Your task to perform on an android device: all mails in gmail Image 0: 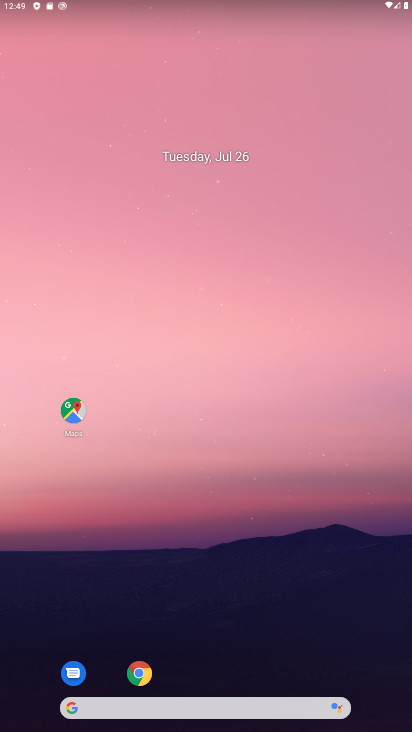
Step 0: drag from (231, 656) to (231, 152)
Your task to perform on an android device: all mails in gmail Image 1: 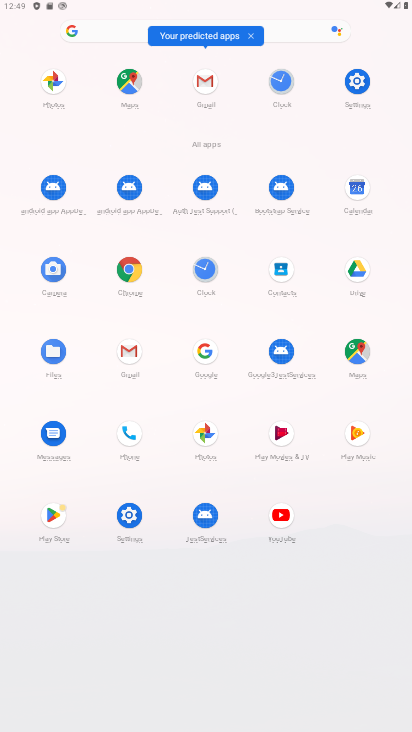
Step 1: click (200, 84)
Your task to perform on an android device: all mails in gmail Image 2: 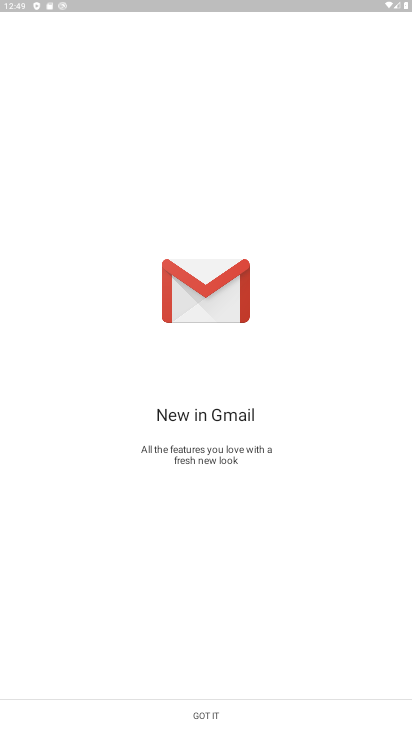
Step 2: click (235, 722)
Your task to perform on an android device: all mails in gmail Image 3: 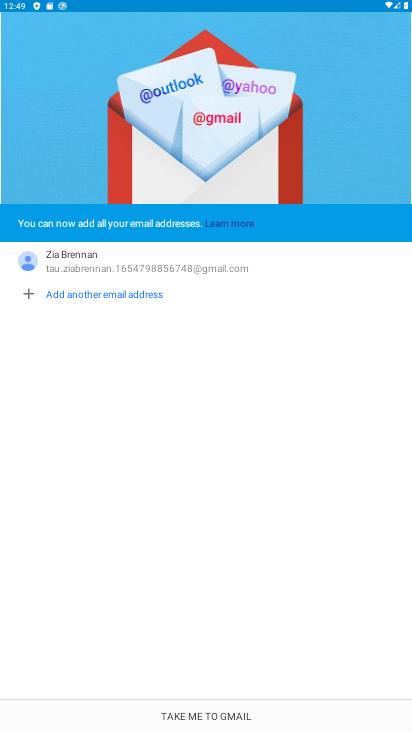
Step 3: click (231, 726)
Your task to perform on an android device: all mails in gmail Image 4: 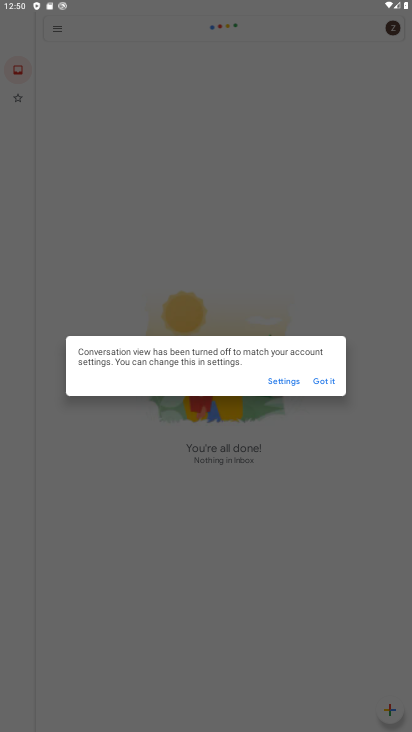
Step 4: click (323, 382)
Your task to perform on an android device: all mails in gmail Image 5: 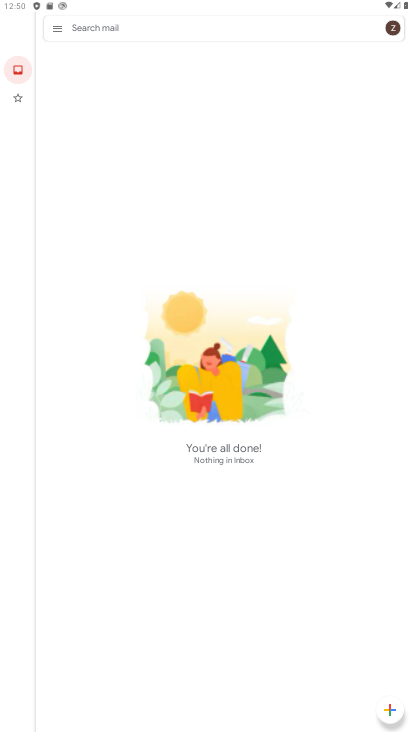
Step 5: click (58, 32)
Your task to perform on an android device: all mails in gmail Image 6: 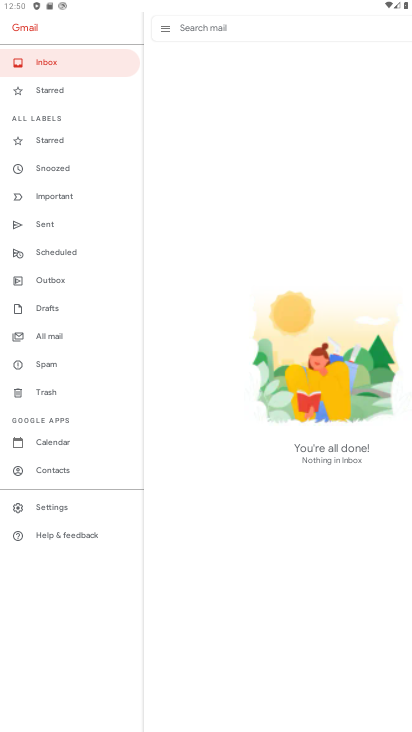
Step 6: click (38, 334)
Your task to perform on an android device: all mails in gmail Image 7: 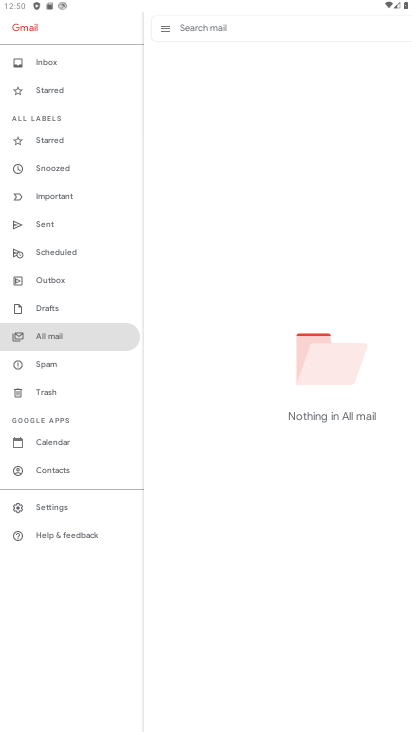
Step 7: task complete